Your task to perform on an android device: manage bookmarks in the chrome app Image 0: 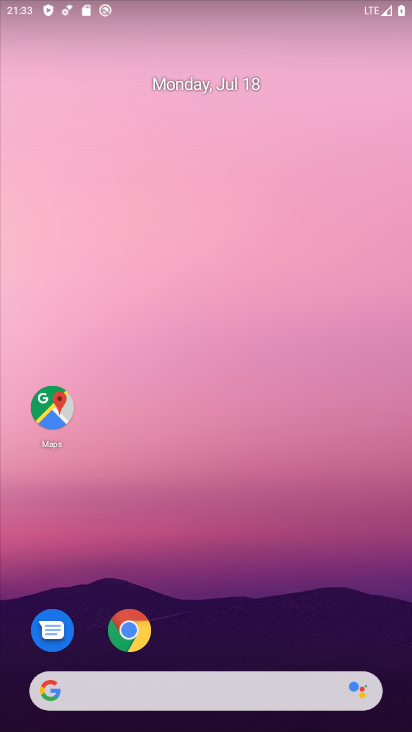
Step 0: drag from (221, 626) to (185, 131)
Your task to perform on an android device: manage bookmarks in the chrome app Image 1: 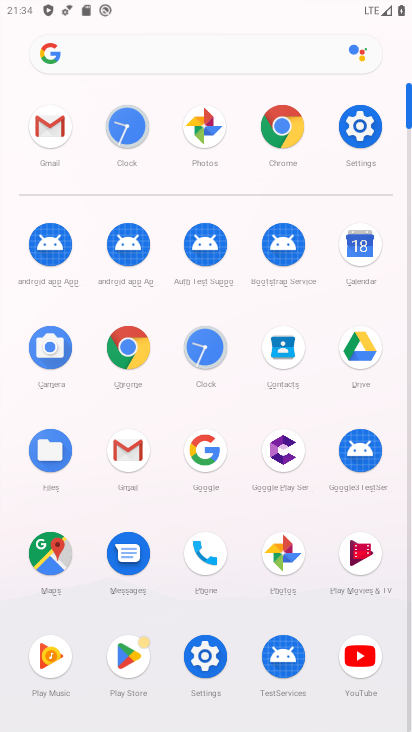
Step 1: click (283, 129)
Your task to perform on an android device: manage bookmarks in the chrome app Image 2: 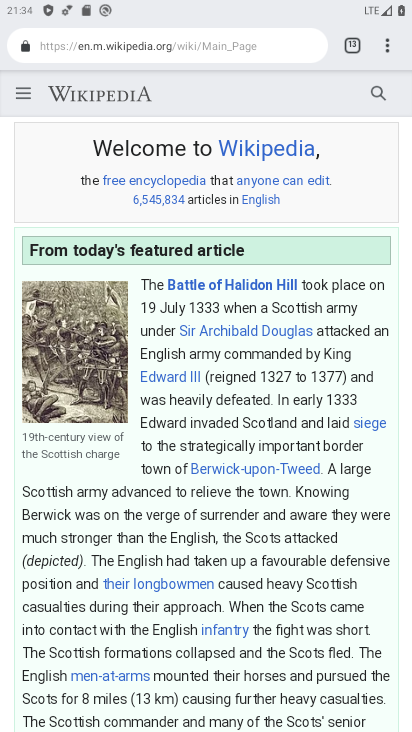
Step 2: click (395, 42)
Your task to perform on an android device: manage bookmarks in the chrome app Image 3: 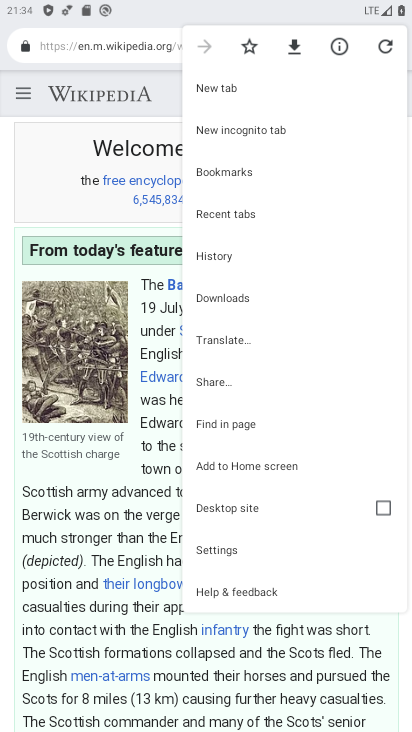
Step 3: click (221, 172)
Your task to perform on an android device: manage bookmarks in the chrome app Image 4: 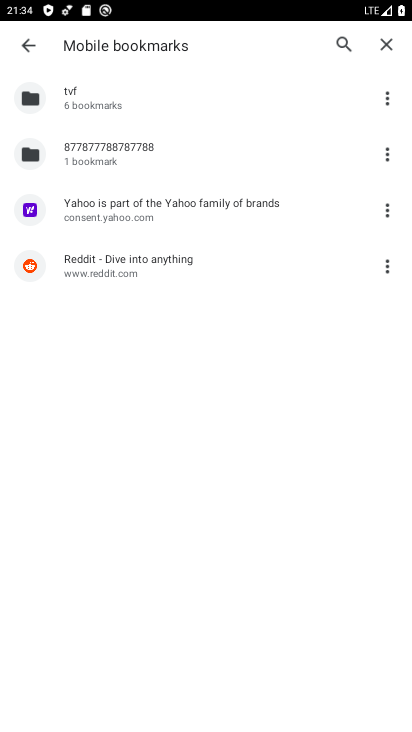
Step 4: click (104, 93)
Your task to perform on an android device: manage bookmarks in the chrome app Image 5: 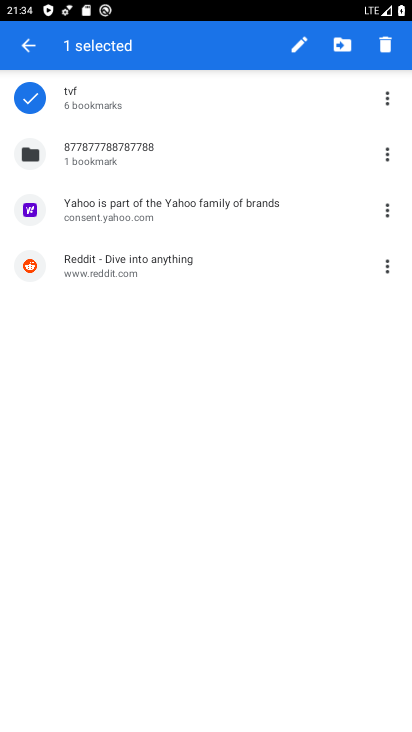
Step 5: click (106, 140)
Your task to perform on an android device: manage bookmarks in the chrome app Image 6: 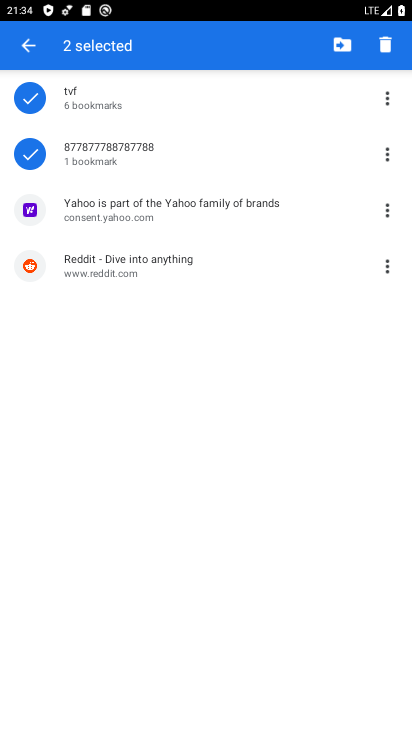
Step 6: click (348, 42)
Your task to perform on an android device: manage bookmarks in the chrome app Image 7: 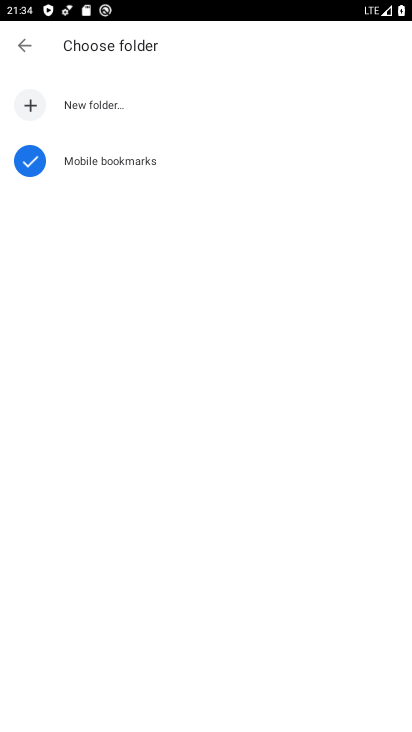
Step 7: click (71, 156)
Your task to perform on an android device: manage bookmarks in the chrome app Image 8: 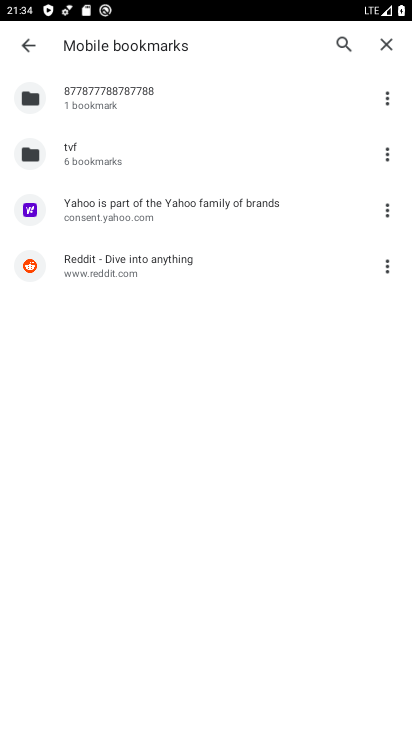
Step 8: task complete